Your task to perform on an android device: Open the calendar and show me this week's events Image 0: 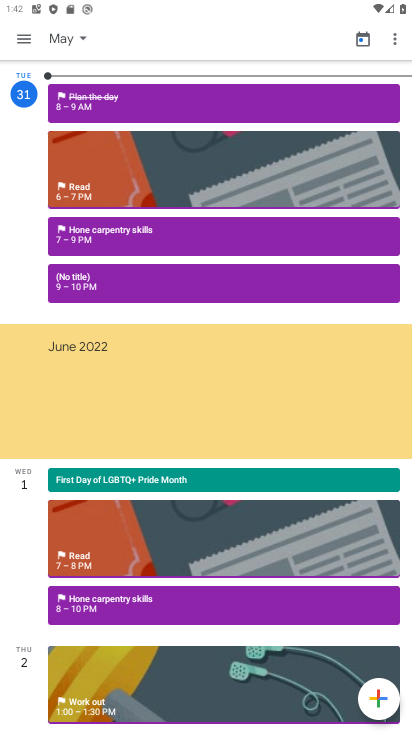
Step 0: press home button
Your task to perform on an android device: Open the calendar and show me this week's events Image 1: 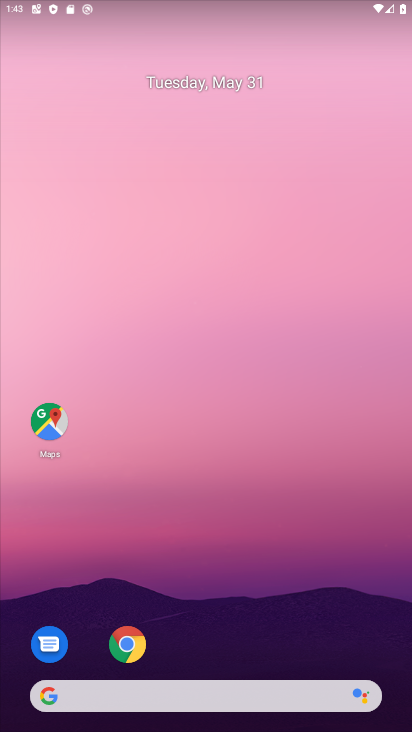
Step 1: drag from (394, 695) to (301, 111)
Your task to perform on an android device: Open the calendar and show me this week's events Image 2: 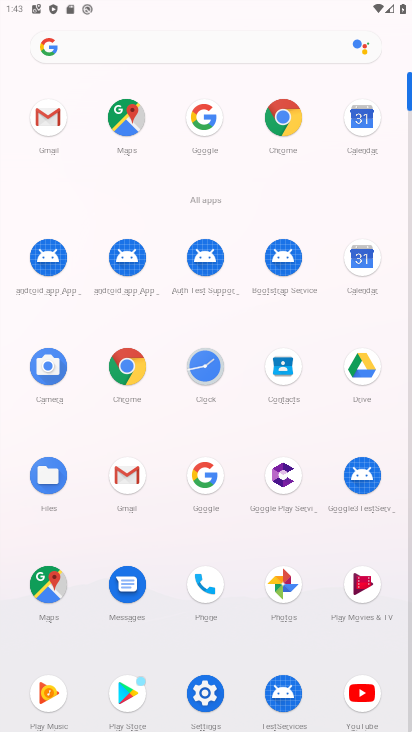
Step 2: click (364, 253)
Your task to perform on an android device: Open the calendar and show me this week's events Image 3: 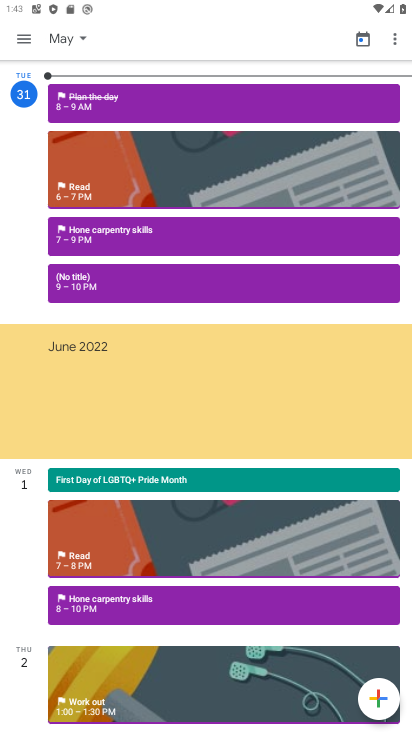
Step 3: click (72, 35)
Your task to perform on an android device: Open the calendar and show me this week's events Image 4: 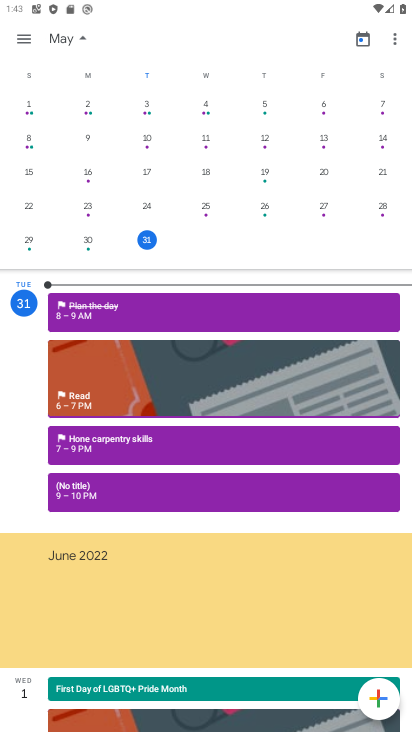
Step 4: click (151, 243)
Your task to perform on an android device: Open the calendar and show me this week's events Image 5: 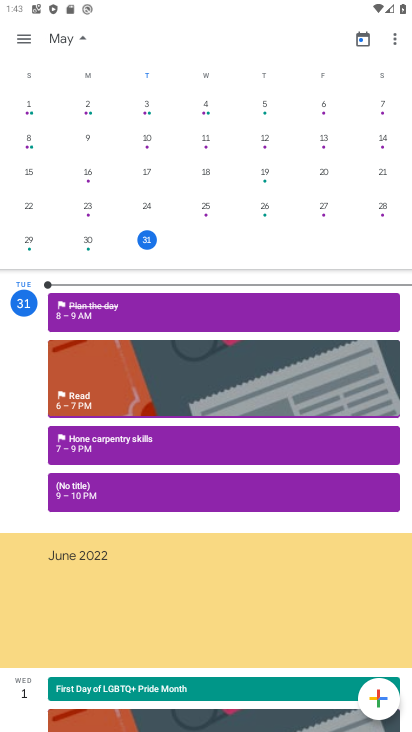
Step 5: click (24, 36)
Your task to perform on an android device: Open the calendar and show me this week's events Image 6: 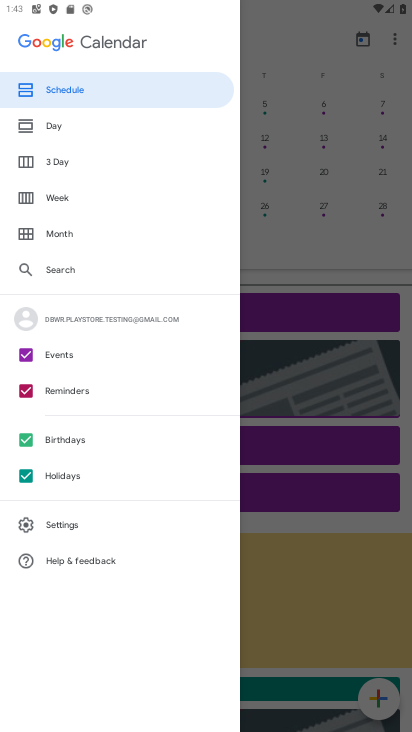
Step 6: click (51, 191)
Your task to perform on an android device: Open the calendar and show me this week's events Image 7: 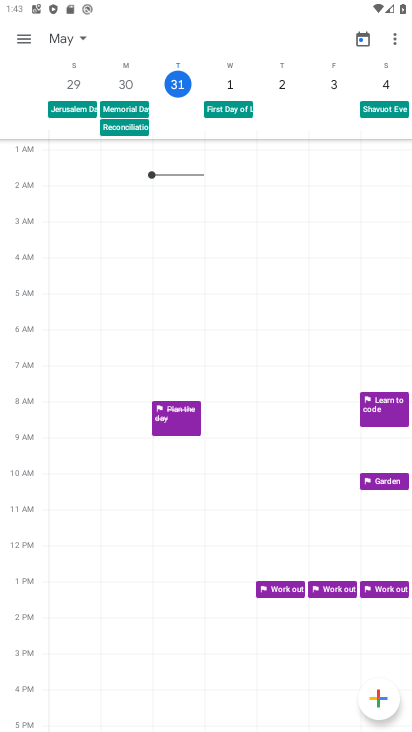
Step 7: click (29, 41)
Your task to perform on an android device: Open the calendar and show me this week's events Image 8: 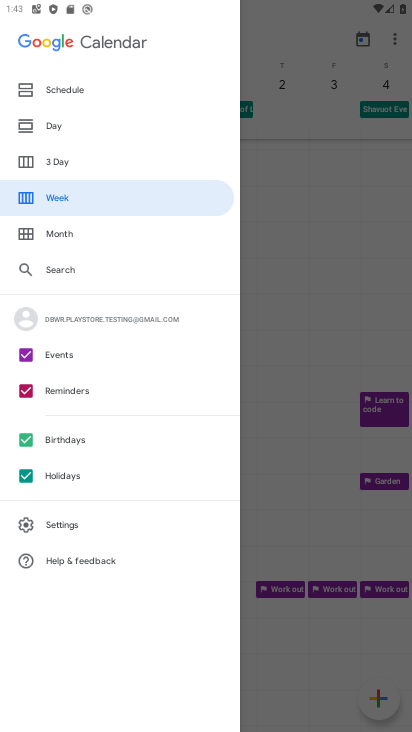
Step 8: click (76, 92)
Your task to perform on an android device: Open the calendar and show me this week's events Image 9: 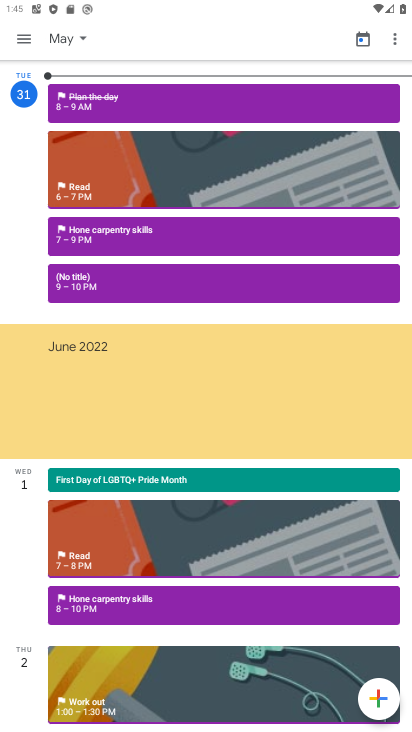
Step 9: task complete